Your task to perform on an android device: read, delete, or share a saved page in the chrome app Image 0: 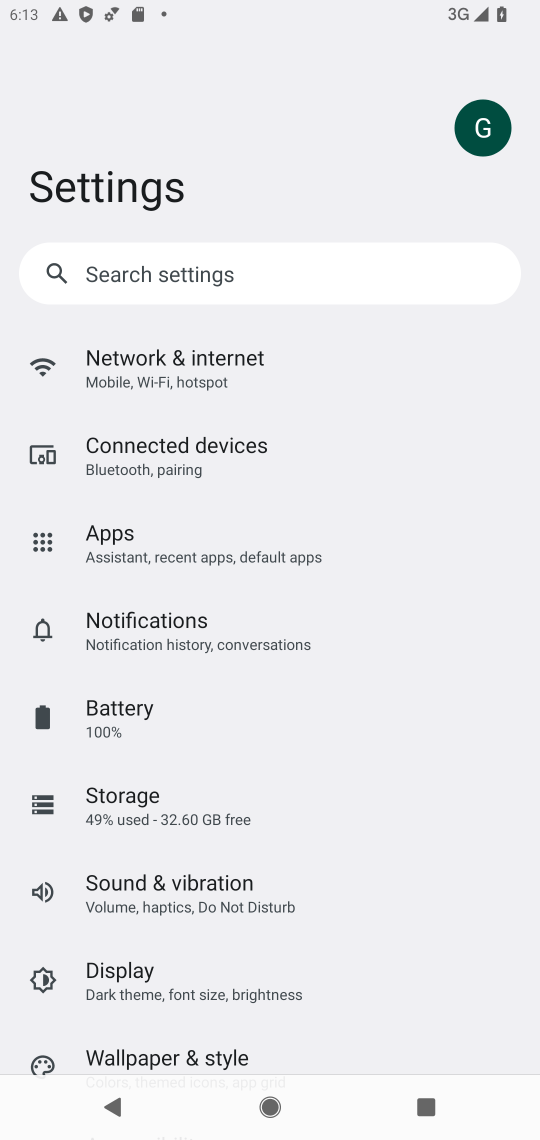
Step 0: press home button
Your task to perform on an android device: read, delete, or share a saved page in the chrome app Image 1: 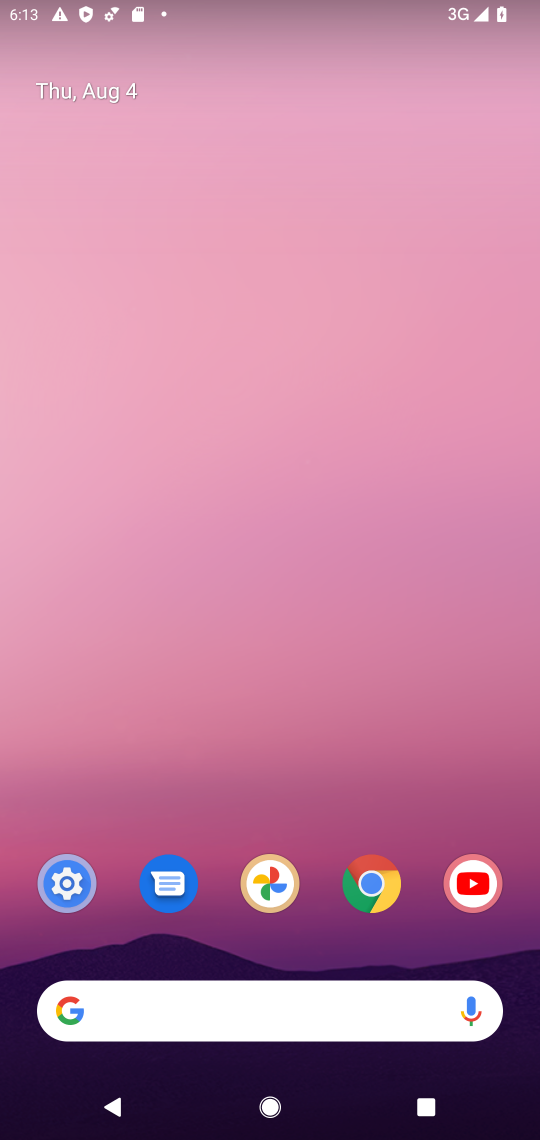
Step 1: click (387, 886)
Your task to perform on an android device: read, delete, or share a saved page in the chrome app Image 2: 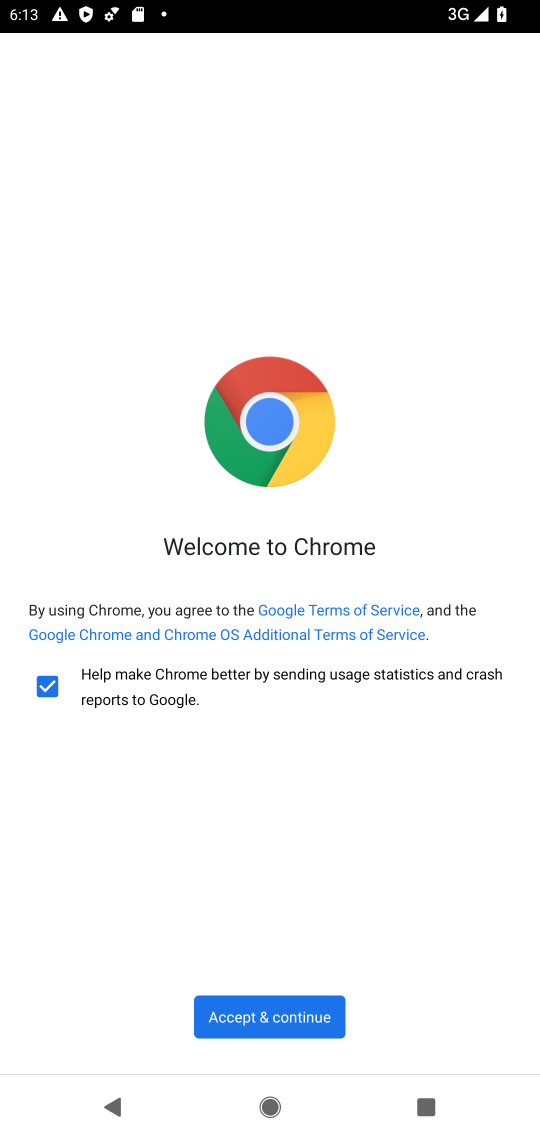
Step 2: click (305, 1016)
Your task to perform on an android device: read, delete, or share a saved page in the chrome app Image 3: 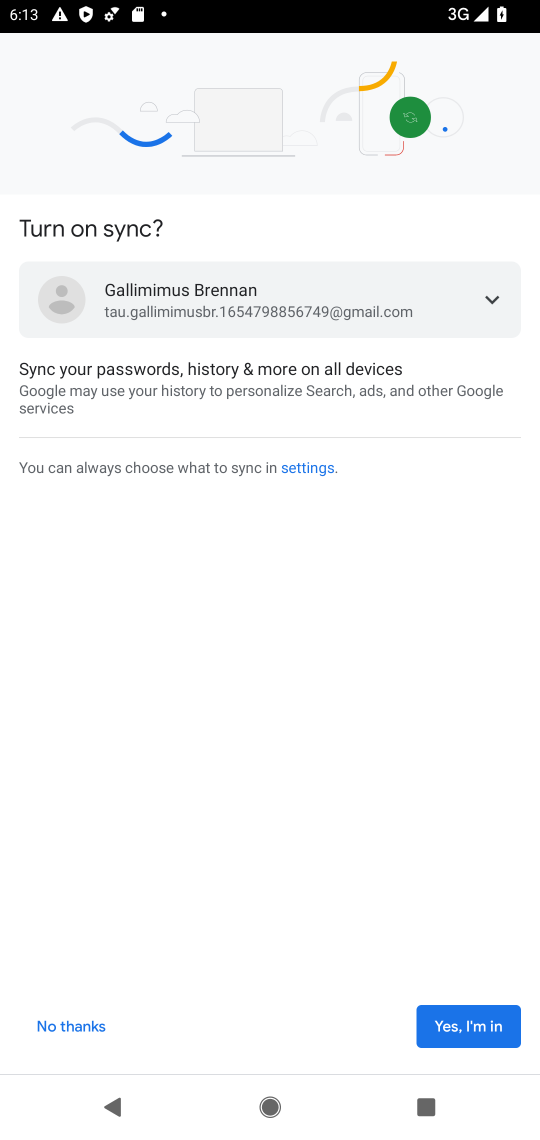
Step 3: click (458, 1028)
Your task to perform on an android device: read, delete, or share a saved page in the chrome app Image 4: 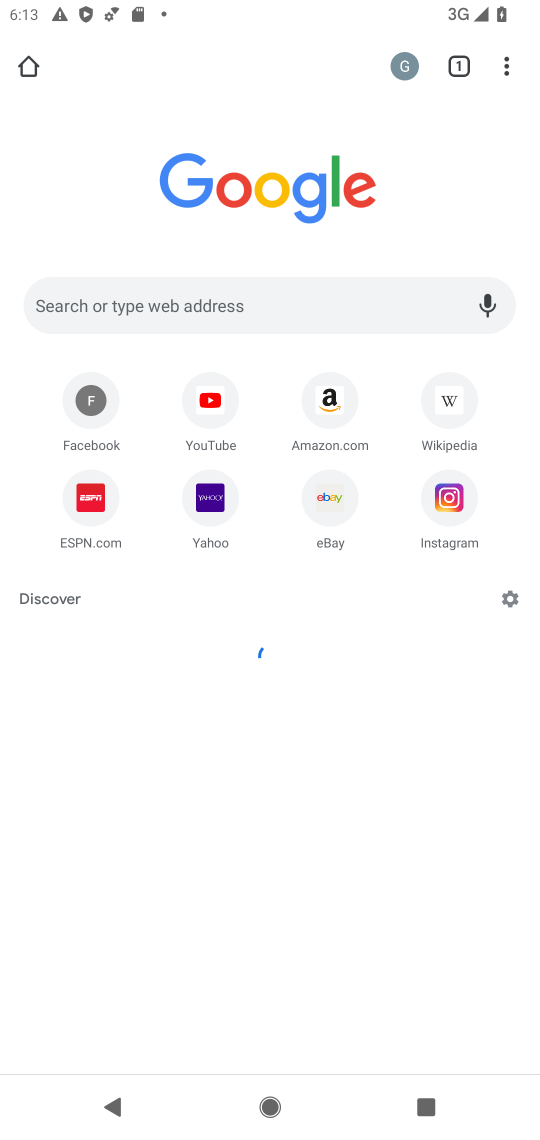
Step 4: click (514, 63)
Your task to perform on an android device: read, delete, or share a saved page in the chrome app Image 5: 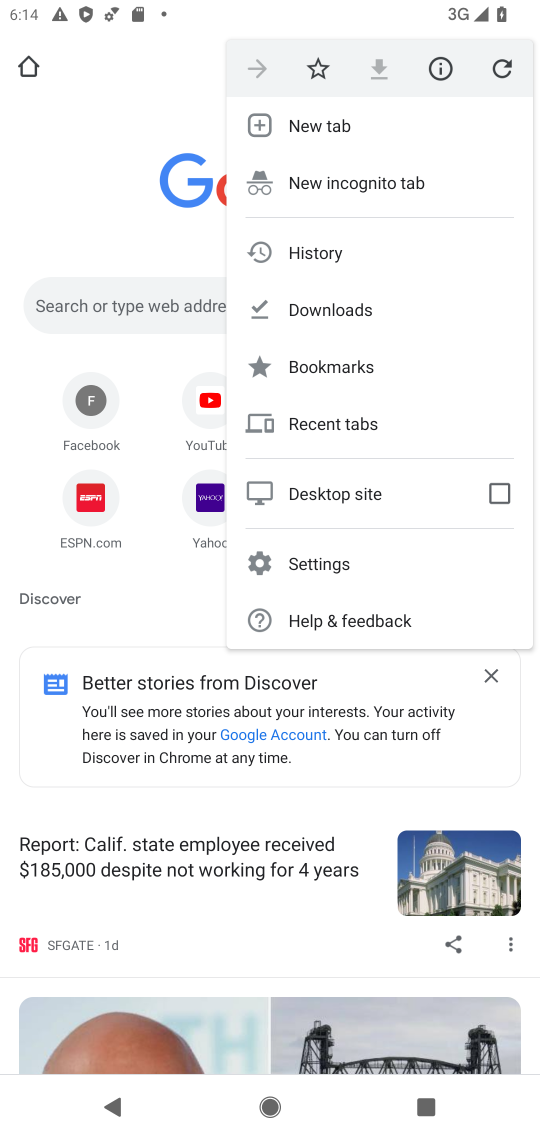
Step 5: click (310, 312)
Your task to perform on an android device: read, delete, or share a saved page in the chrome app Image 6: 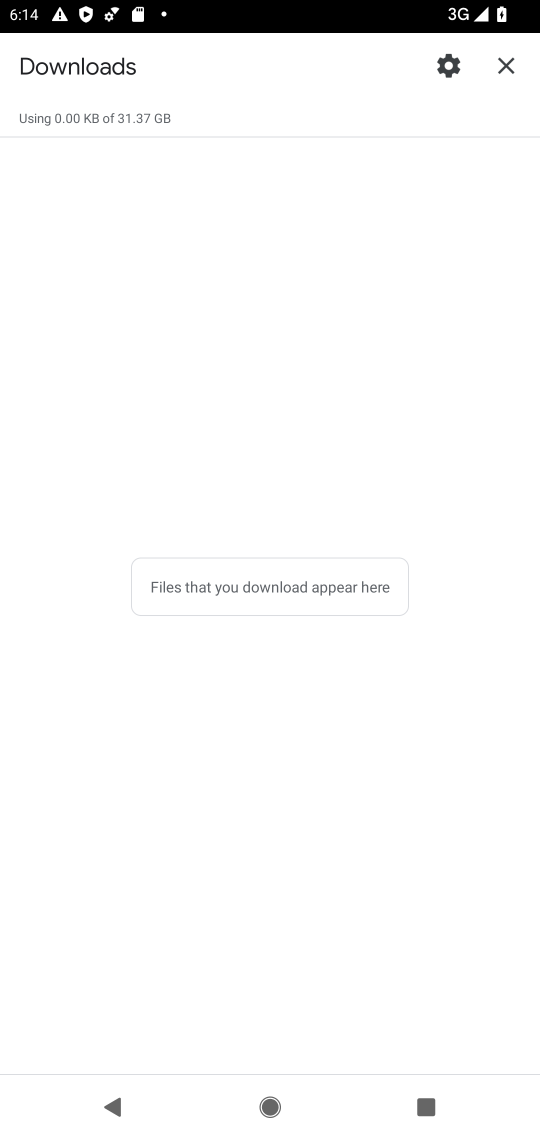
Step 6: task complete